Your task to perform on an android device: turn on location history Image 0: 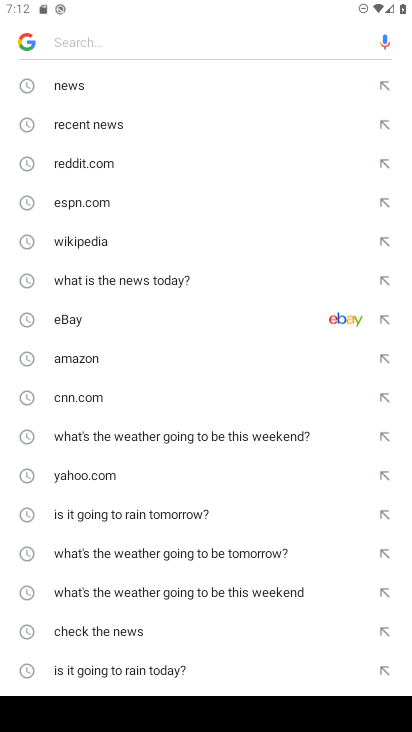
Step 0: press home button
Your task to perform on an android device: turn on location history Image 1: 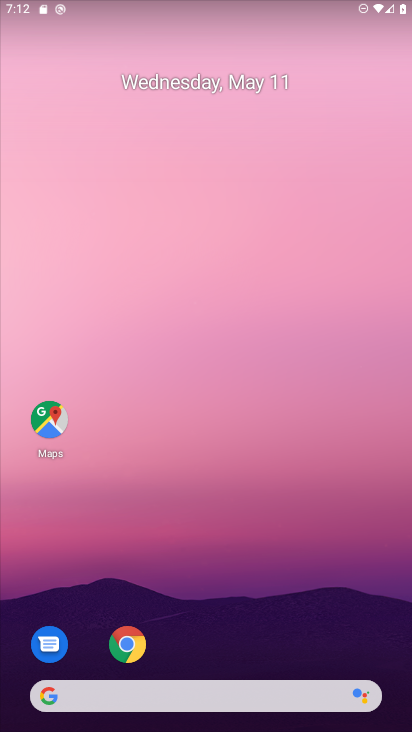
Step 1: click (47, 421)
Your task to perform on an android device: turn on location history Image 2: 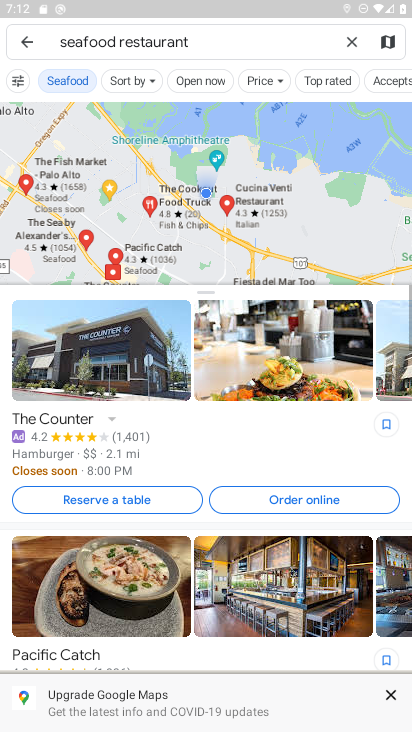
Step 2: click (28, 40)
Your task to perform on an android device: turn on location history Image 3: 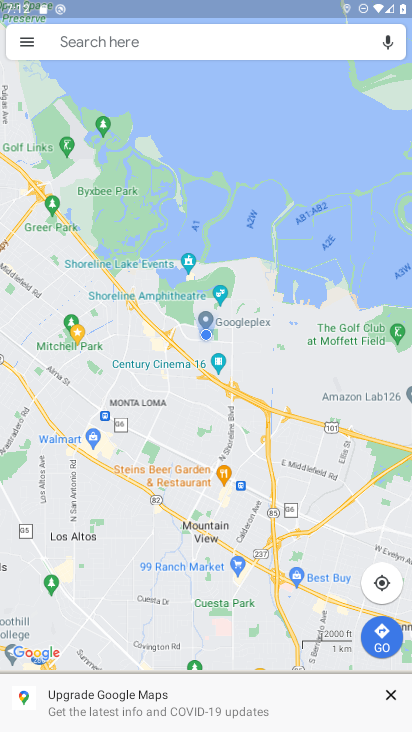
Step 3: click (24, 41)
Your task to perform on an android device: turn on location history Image 4: 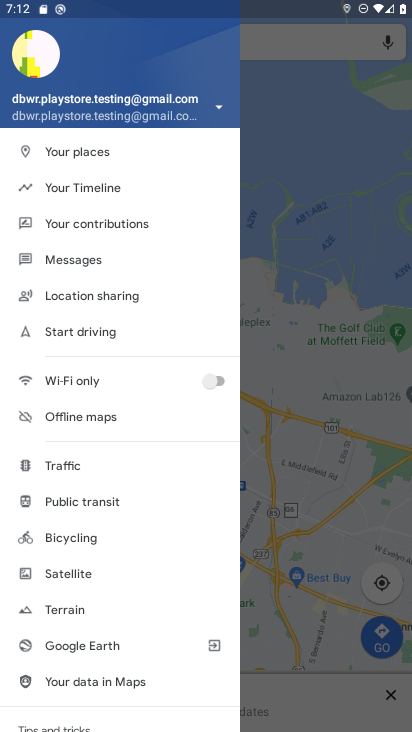
Step 4: click (76, 184)
Your task to perform on an android device: turn on location history Image 5: 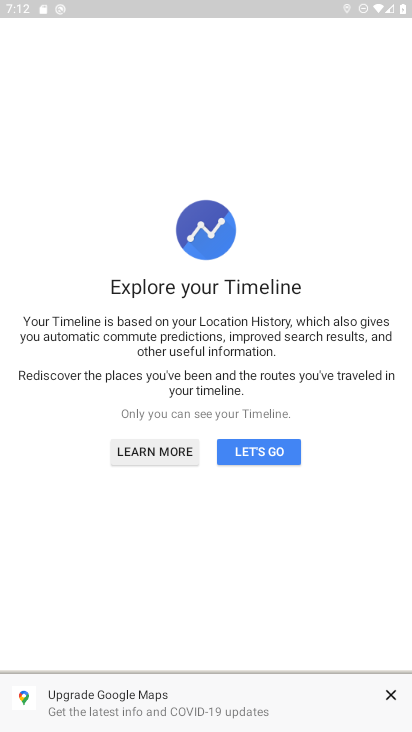
Step 5: click (262, 458)
Your task to perform on an android device: turn on location history Image 6: 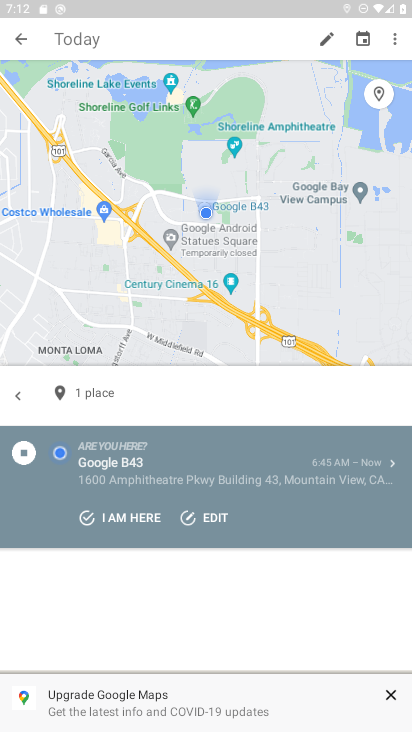
Step 6: click (394, 37)
Your task to perform on an android device: turn on location history Image 7: 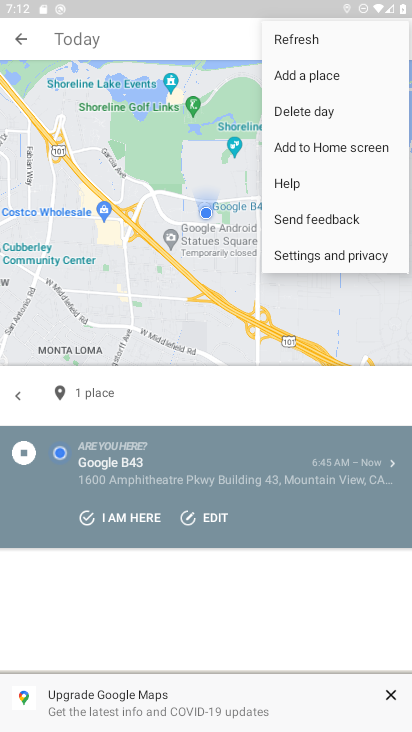
Step 7: click (307, 258)
Your task to perform on an android device: turn on location history Image 8: 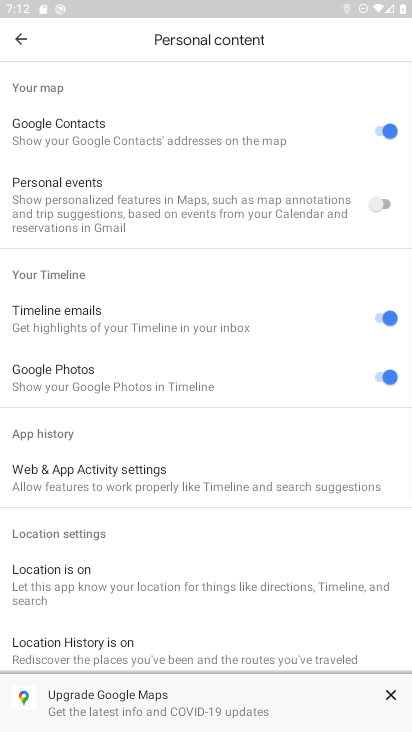
Step 8: drag from (268, 528) to (249, 279)
Your task to perform on an android device: turn on location history Image 9: 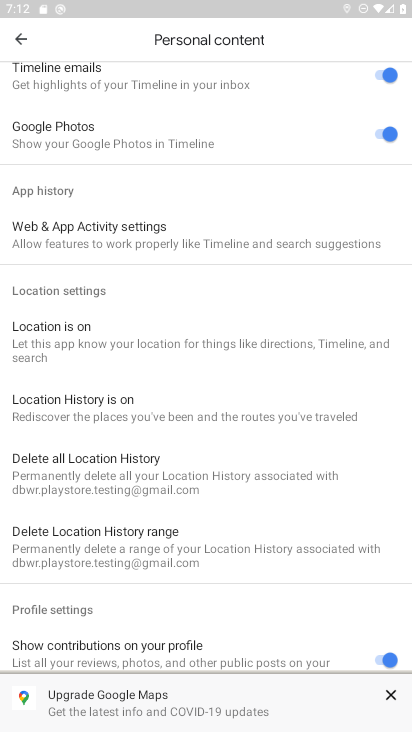
Step 9: drag from (170, 606) to (145, 173)
Your task to perform on an android device: turn on location history Image 10: 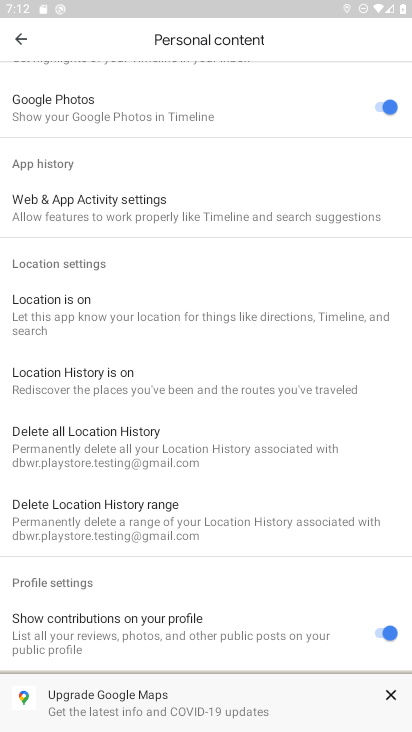
Step 10: drag from (240, 585) to (156, 230)
Your task to perform on an android device: turn on location history Image 11: 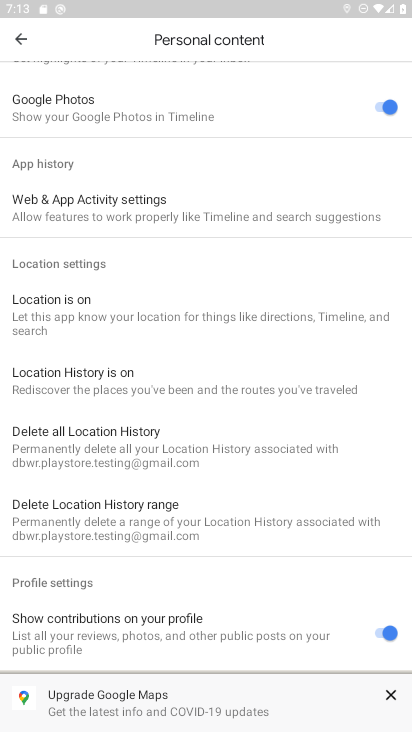
Step 11: click (71, 380)
Your task to perform on an android device: turn on location history Image 12: 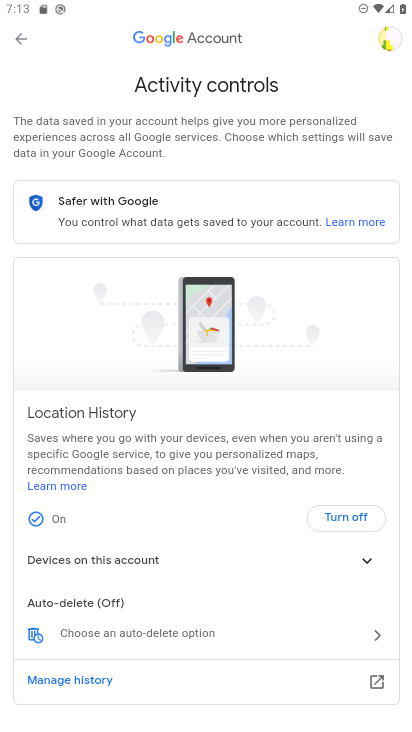
Step 12: task complete